Your task to perform on an android device: Open Chrome and go to the settings page Image 0: 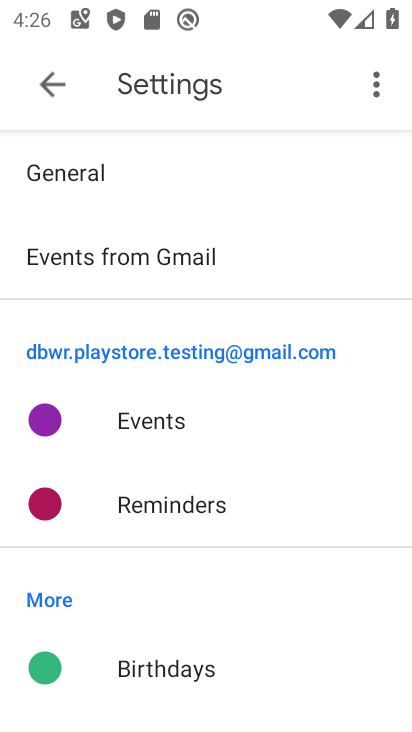
Step 0: press home button
Your task to perform on an android device: Open Chrome and go to the settings page Image 1: 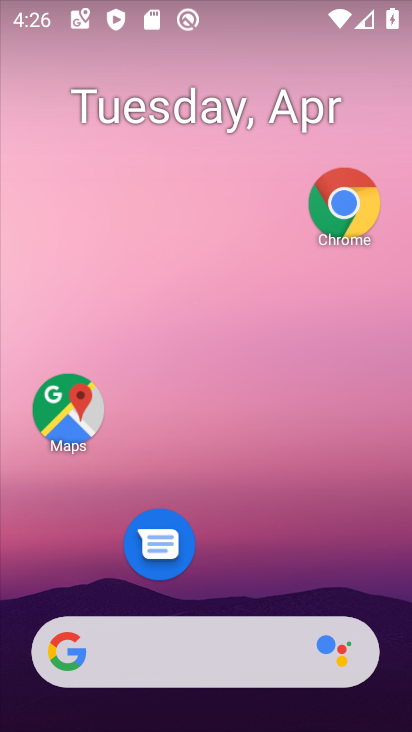
Step 1: click (373, 190)
Your task to perform on an android device: Open Chrome and go to the settings page Image 2: 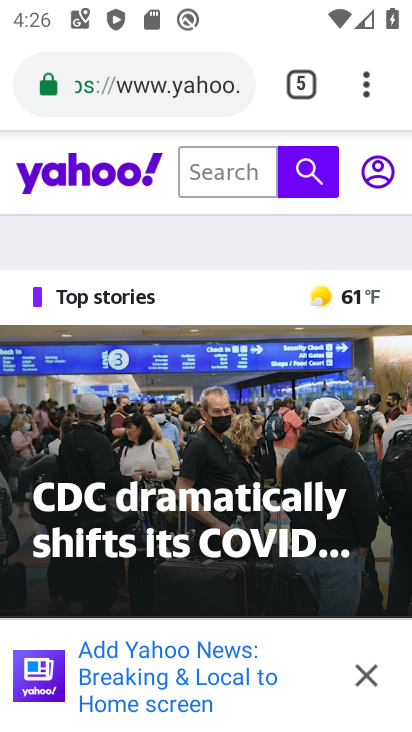
Step 2: click (361, 93)
Your task to perform on an android device: Open Chrome and go to the settings page Image 3: 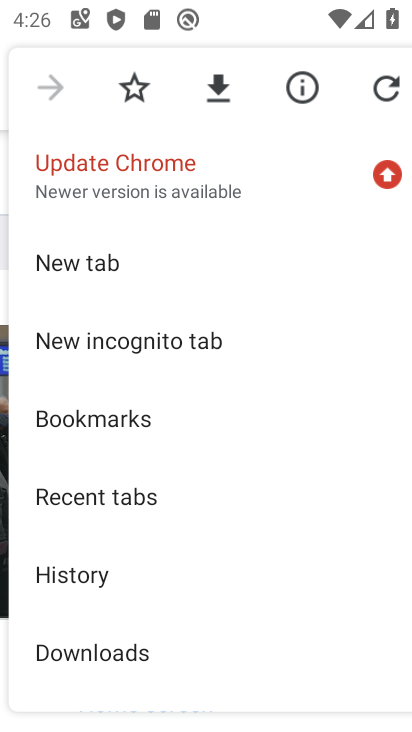
Step 3: drag from (78, 610) to (215, 169)
Your task to perform on an android device: Open Chrome and go to the settings page Image 4: 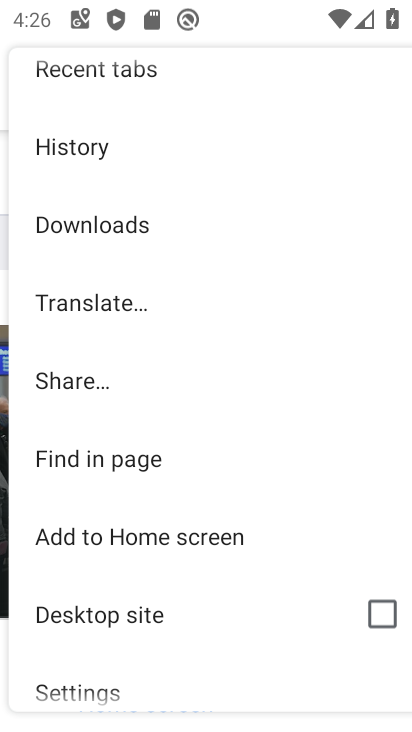
Step 4: drag from (95, 598) to (213, 180)
Your task to perform on an android device: Open Chrome and go to the settings page Image 5: 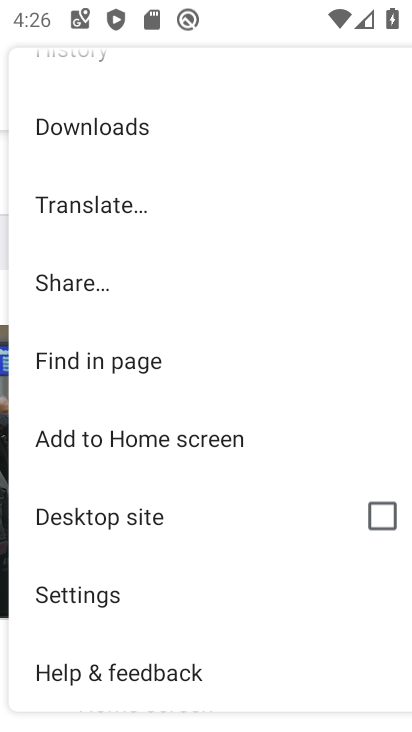
Step 5: click (53, 599)
Your task to perform on an android device: Open Chrome and go to the settings page Image 6: 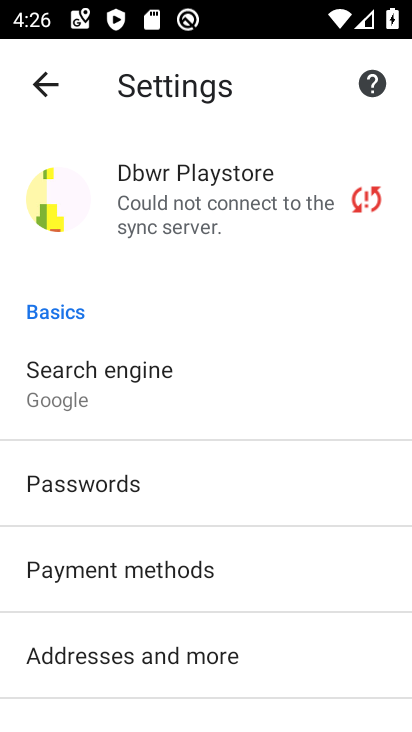
Step 6: task complete